Your task to perform on an android device: Open maps Image 0: 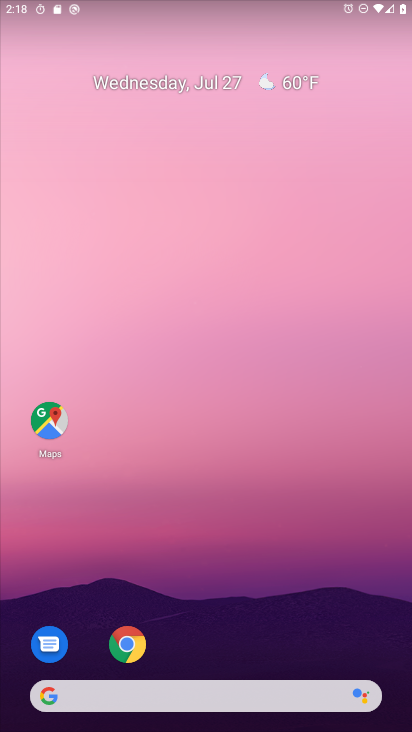
Step 0: drag from (173, 625) to (207, 413)
Your task to perform on an android device: Open maps Image 1: 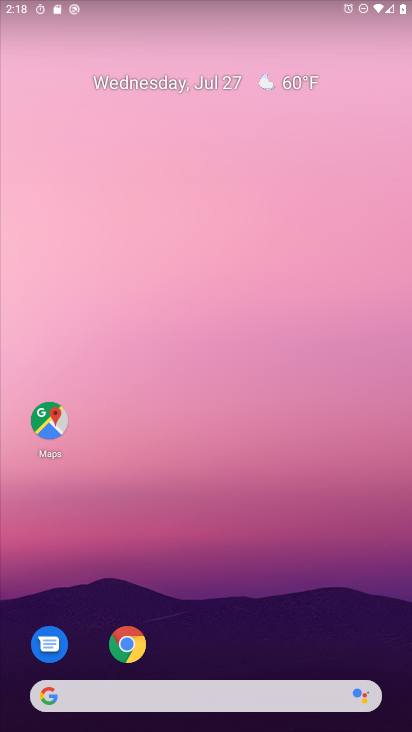
Step 1: drag from (167, 671) to (177, 287)
Your task to perform on an android device: Open maps Image 2: 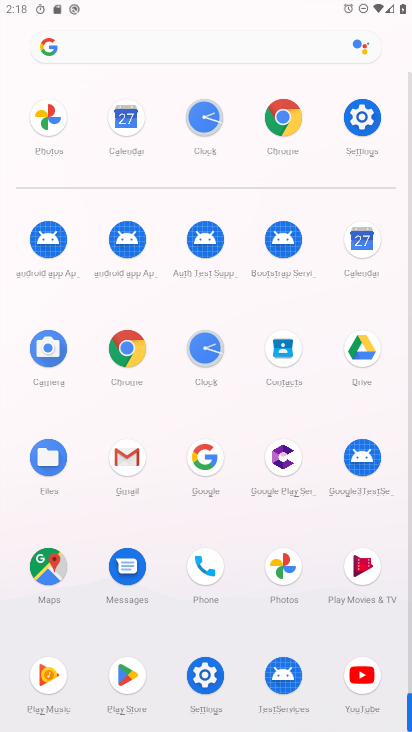
Step 2: click (45, 565)
Your task to perform on an android device: Open maps Image 3: 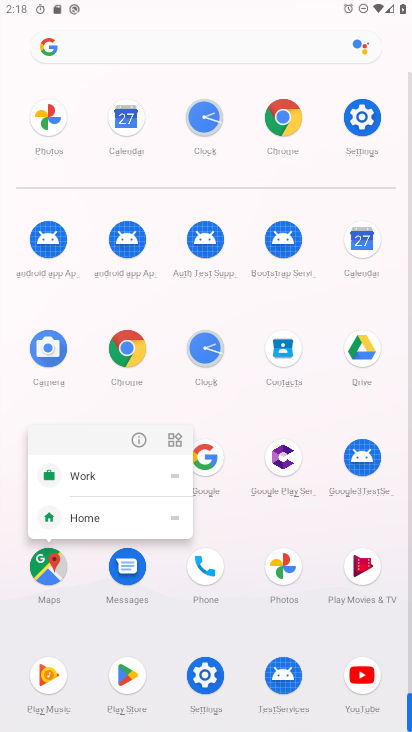
Step 3: click (139, 441)
Your task to perform on an android device: Open maps Image 4: 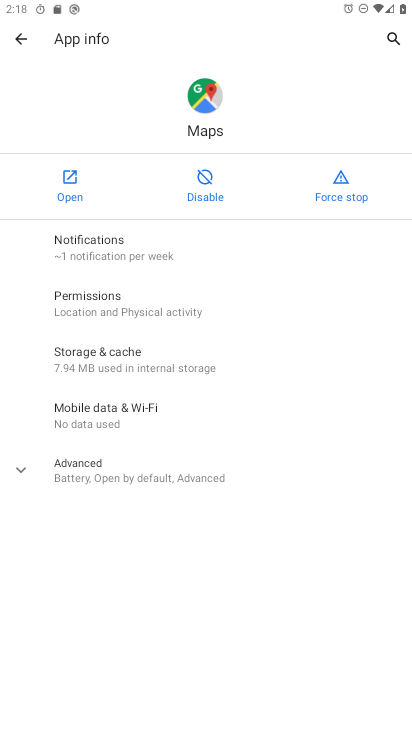
Step 4: click (57, 182)
Your task to perform on an android device: Open maps Image 5: 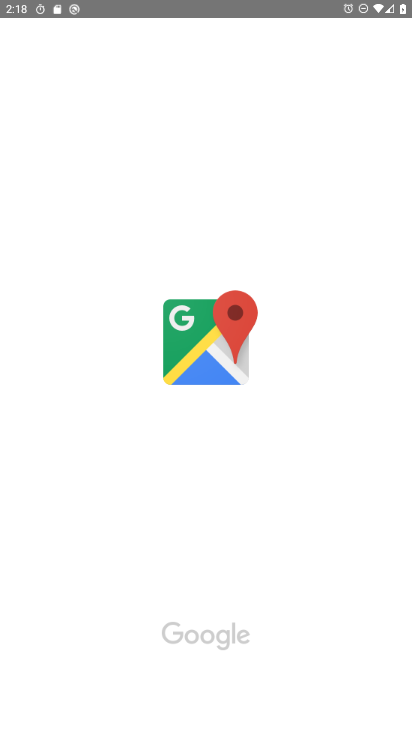
Step 5: task complete